Your task to perform on an android device: delete location history Image 0: 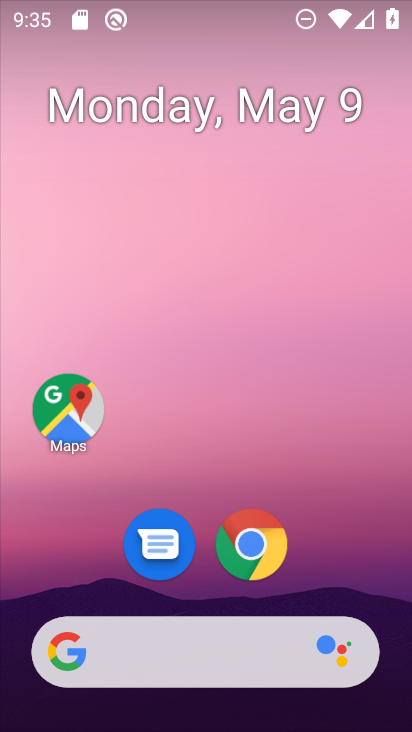
Step 0: click (331, 526)
Your task to perform on an android device: delete location history Image 1: 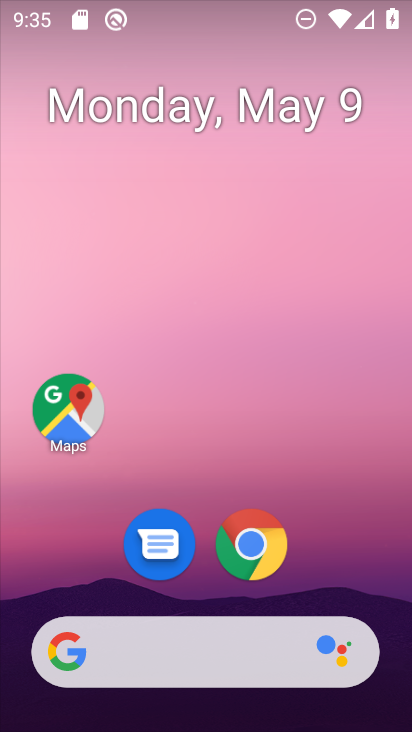
Step 1: click (72, 422)
Your task to perform on an android device: delete location history Image 2: 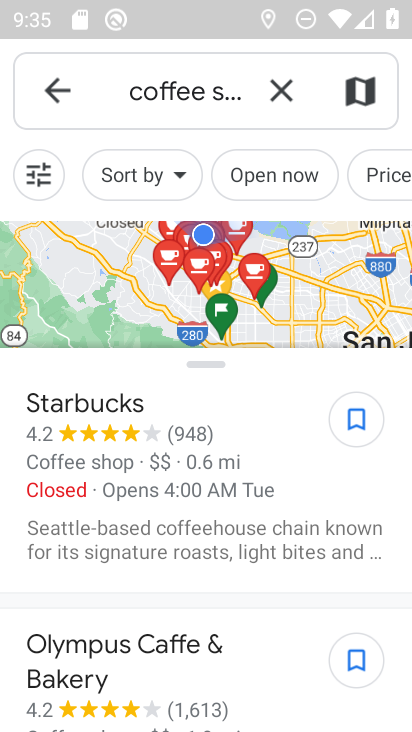
Step 2: click (55, 97)
Your task to perform on an android device: delete location history Image 3: 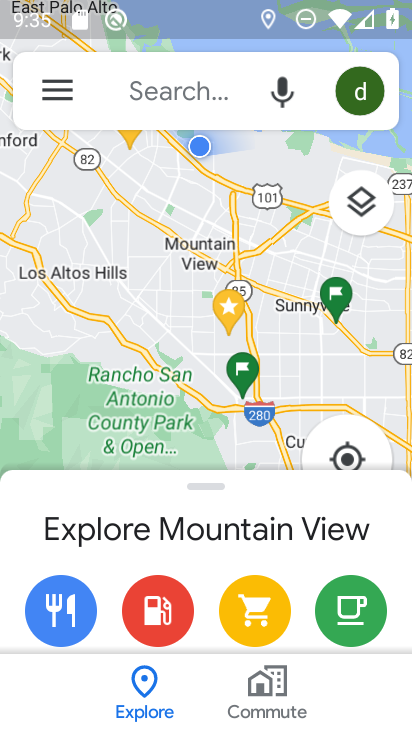
Step 3: click (55, 90)
Your task to perform on an android device: delete location history Image 4: 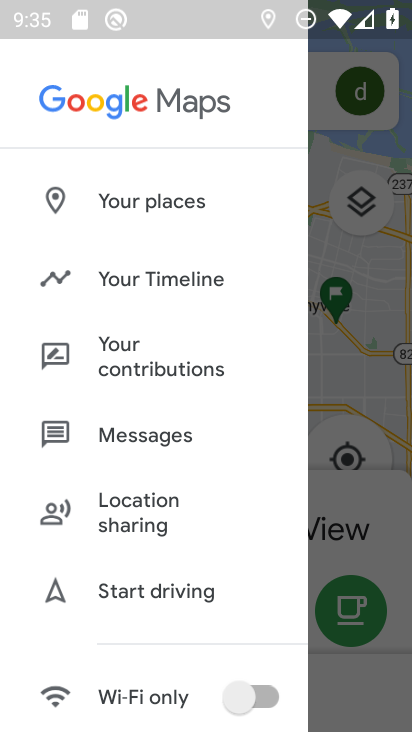
Step 4: click (140, 271)
Your task to perform on an android device: delete location history Image 5: 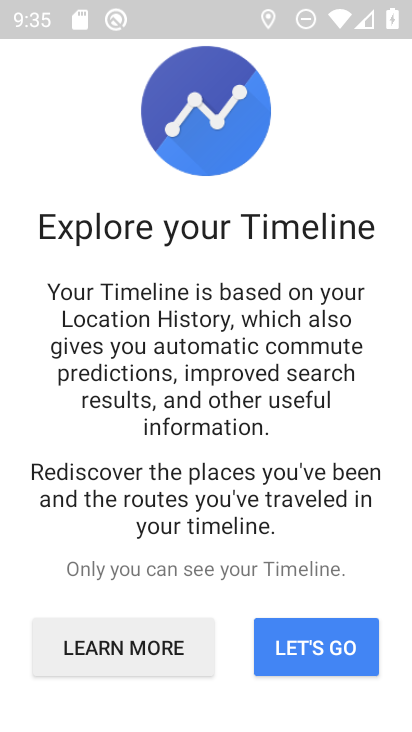
Step 5: click (322, 654)
Your task to perform on an android device: delete location history Image 6: 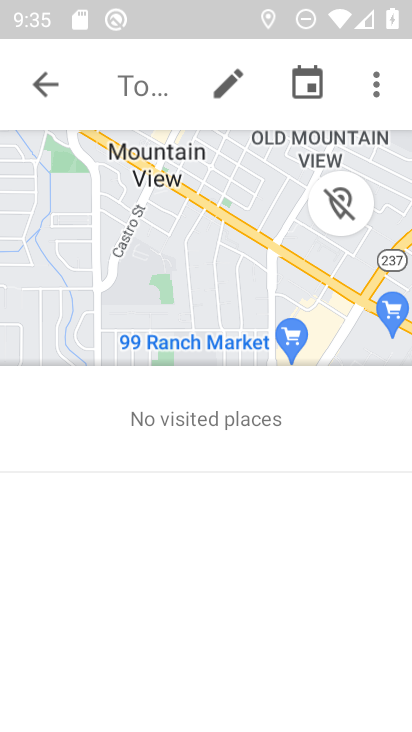
Step 6: click (372, 78)
Your task to perform on an android device: delete location history Image 7: 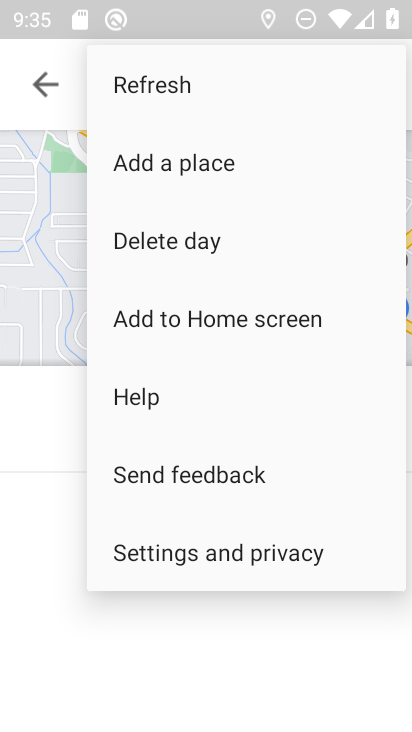
Step 7: drag from (265, 486) to (240, 105)
Your task to perform on an android device: delete location history Image 8: 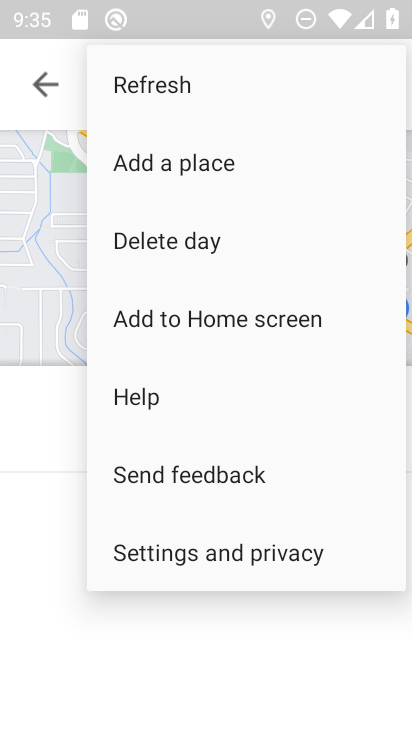
Step 8: click (200, 548)
Your task to perform on an android device: delete location history Image 9: 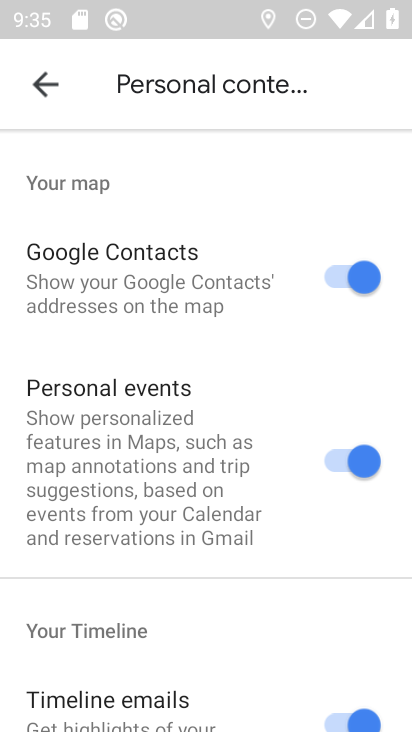
Step 9: drag from (236, 598) to (236, 51)
Your task to perform on an android device: delete location history Image 10: 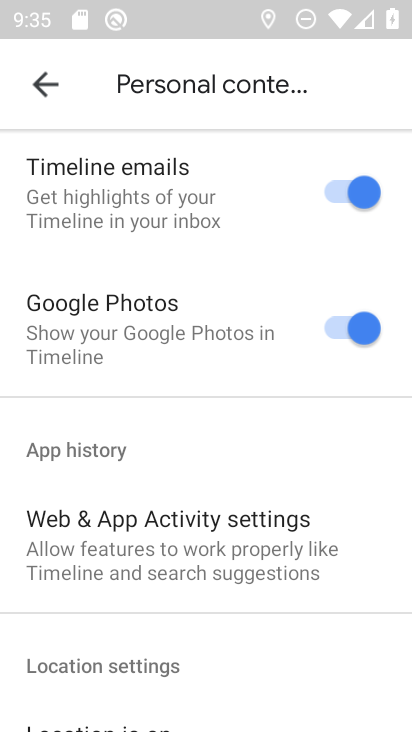
Step 10: drag from (231, 406) to (209, 40)
Your task to perform on an android device: delete location history Image 11: 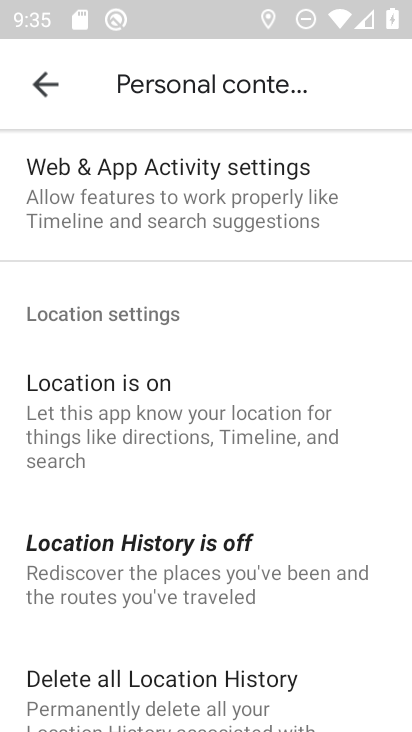
Step 11: click (200, 688)
Your task to perform on an android device: delete location history Image 12: 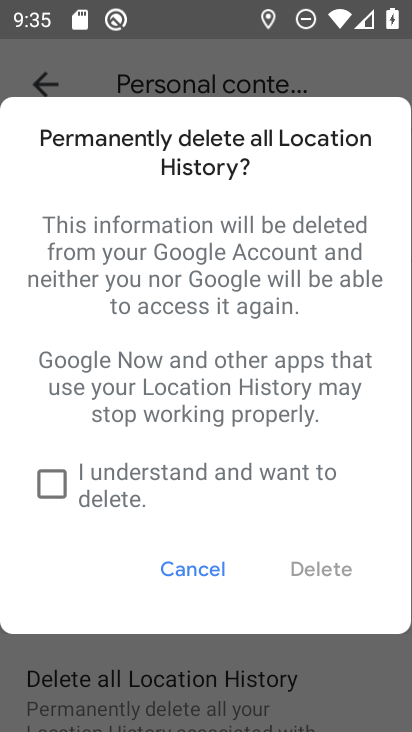
Step 12: click (52, 481)
Your task to perform on an android device: delete location history Image 13: 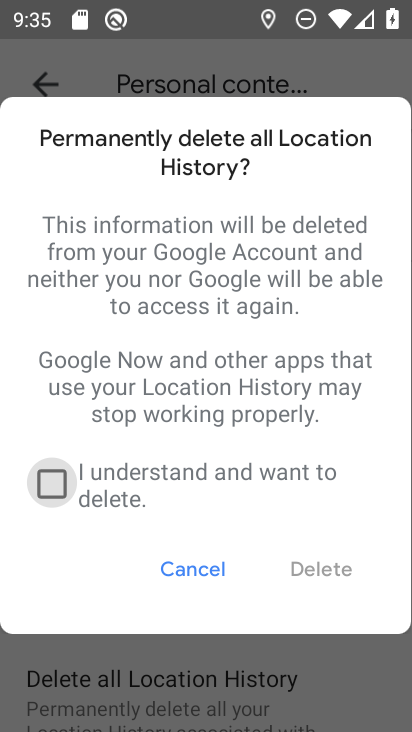
Step 13: click (52, 481)
Your task to perform on an android device: delete location history Image 14: 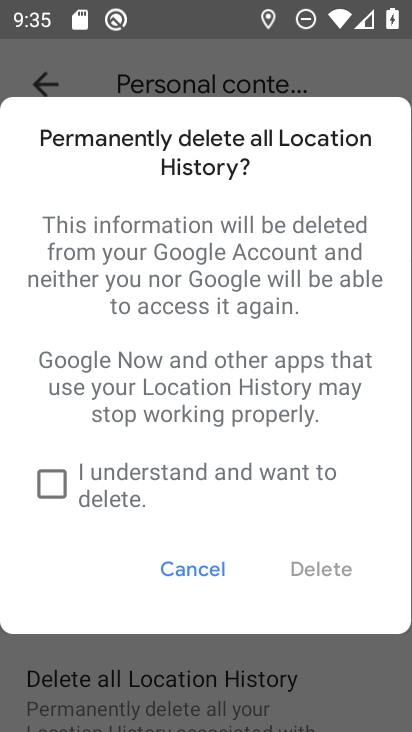
Step 14: click (55, 490)
Your task to perform on an android device: delete location history Image 15: 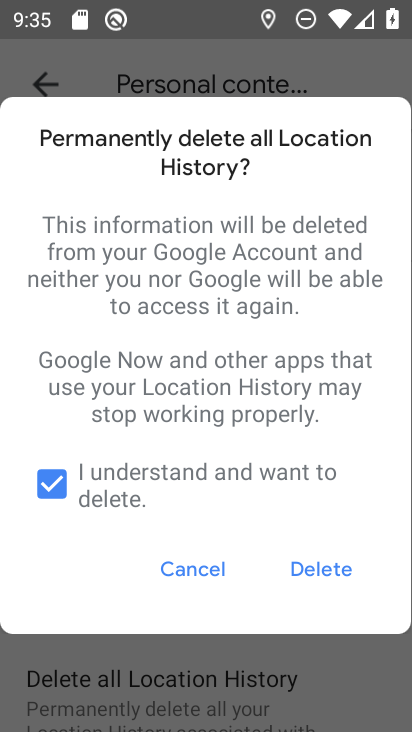
Step 15: click (311, 573)
Your task to perform on an android device: delete location history Image 16: 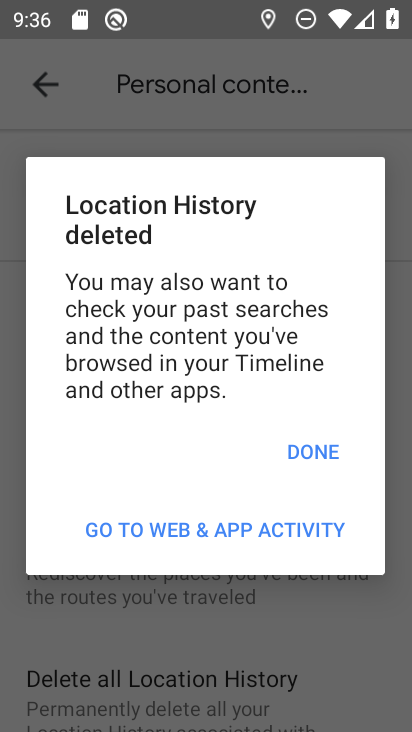
Step 16: click (320, 454)
Your task to perform on an android device: delete location history Image 17: 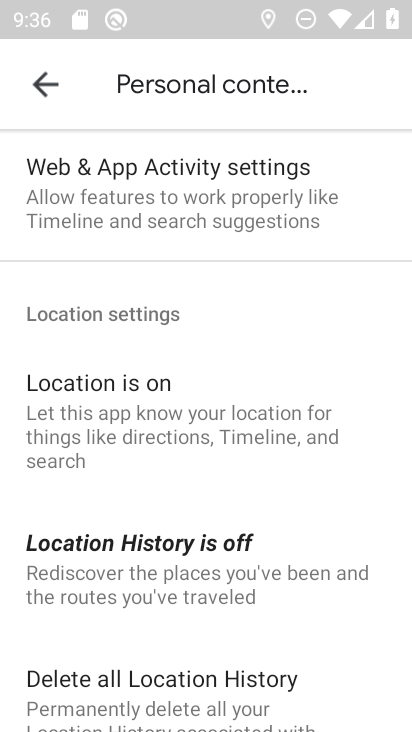
Step 17: task complete